Your task to perform on an android device: remove spam from my inbox in the gmail app Image 0: 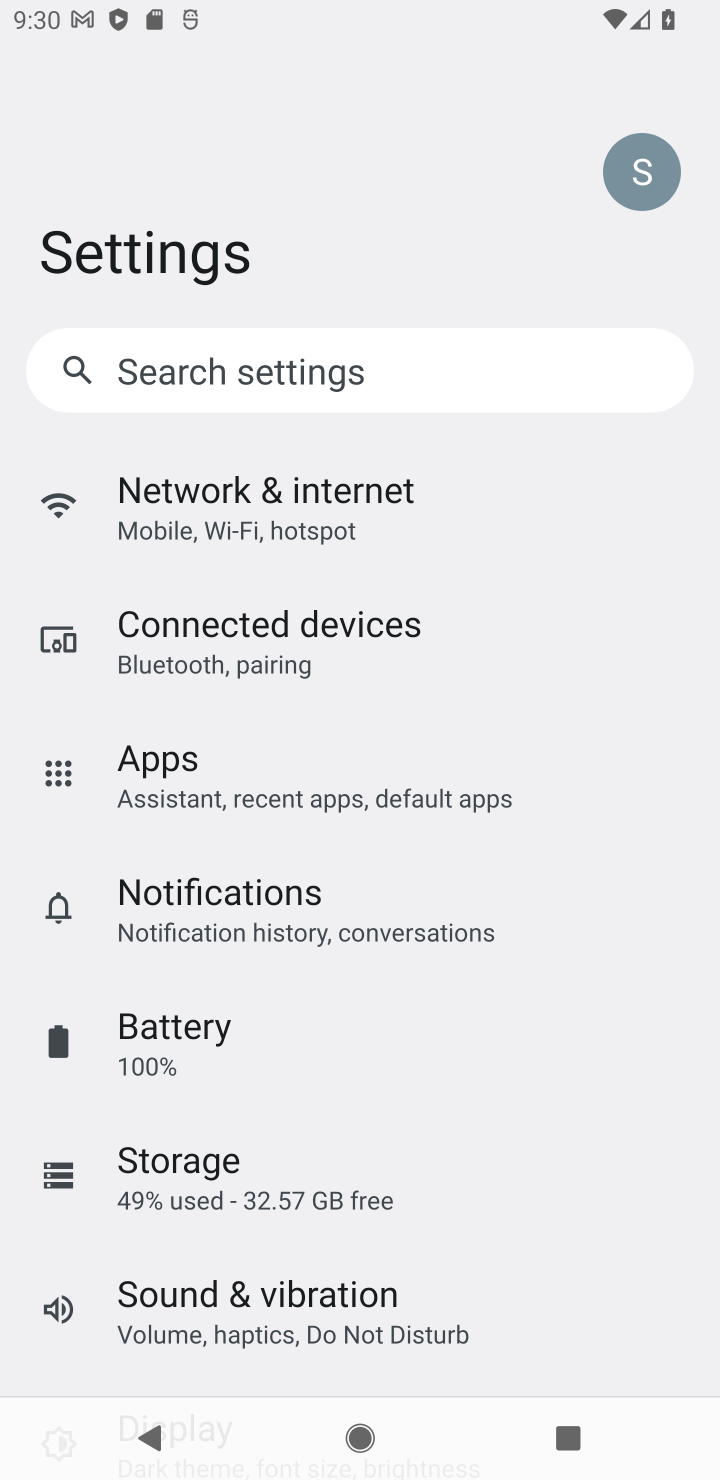
Step 0: press back button
Your task to perform on an android device: remove spam from my inbox in the gmail app Image 1: 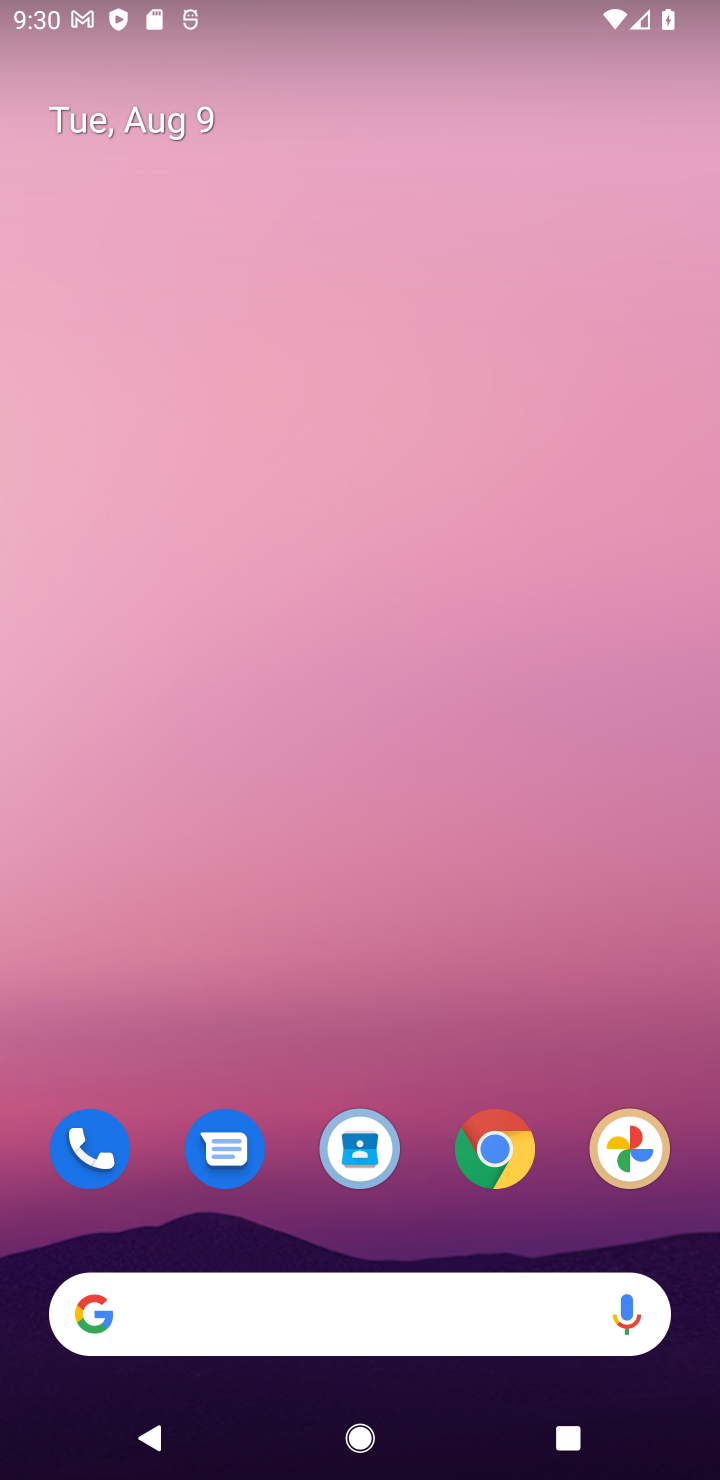
Step 1: drag from (217, 1188) to (575, 69)
Your task to perform on an android device: remove spam from my inbox in the gmail app Image 2: 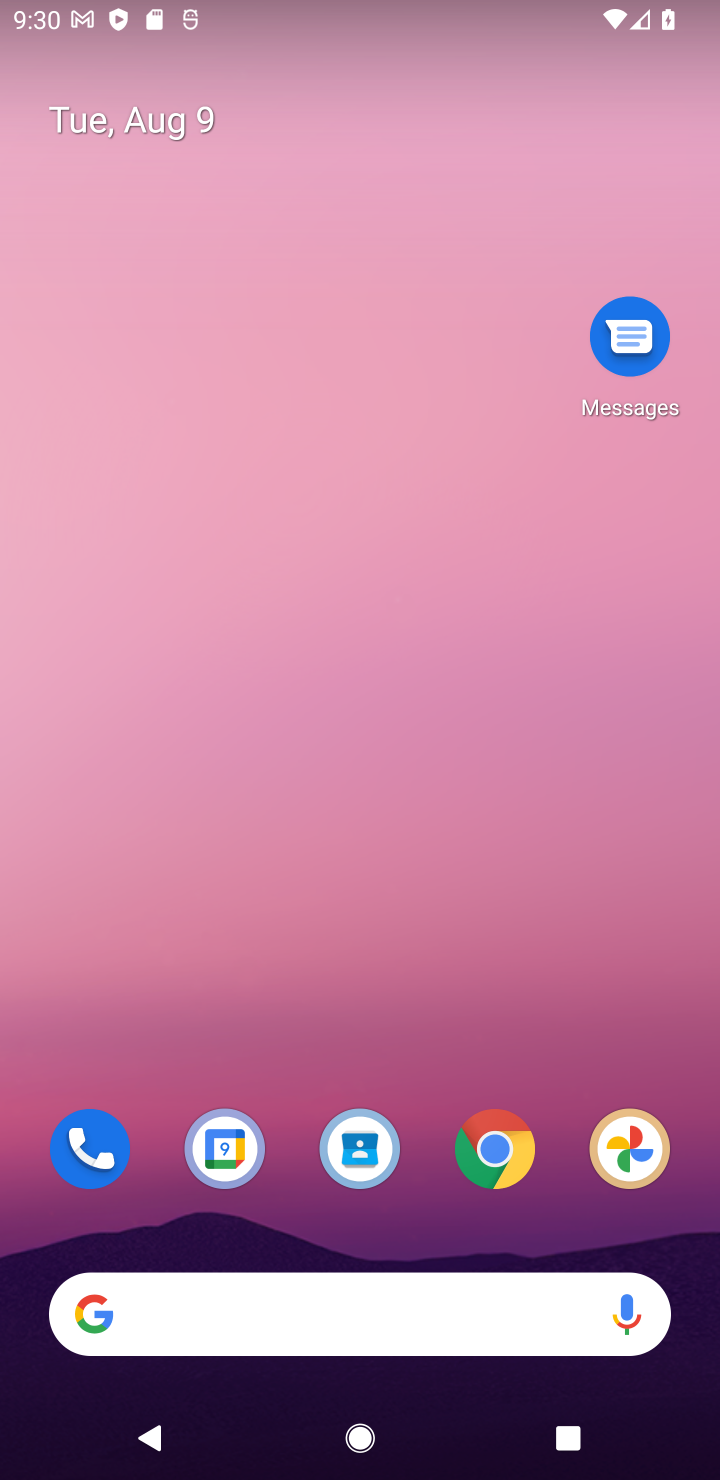
Step 2: drag from (308, 569) to (366, 15)
Your task to perform on an android device: remove spam from my inbox in the gmail app Image 3: 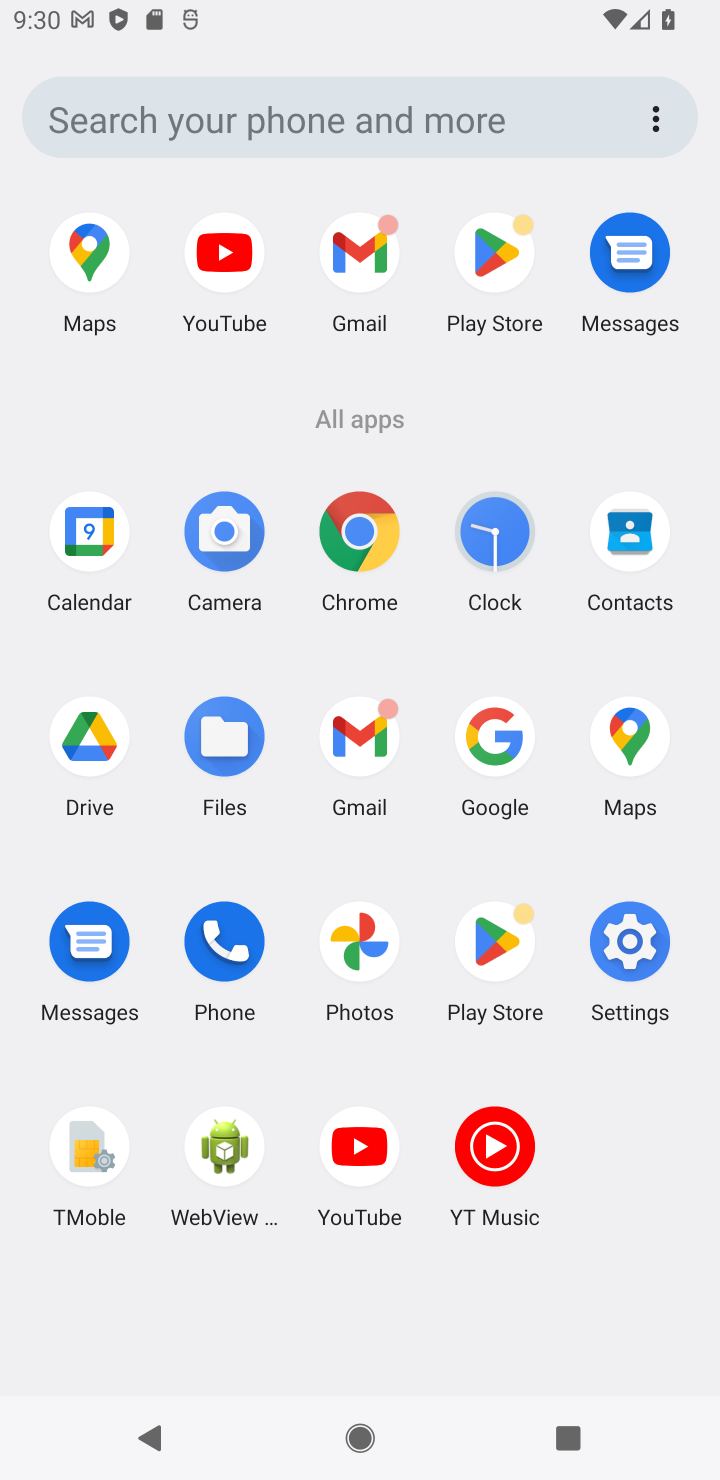
Step 3: click (375, 243)
Your task to perform on an android device: remove spam from my inbox in the gmail app Image 4: 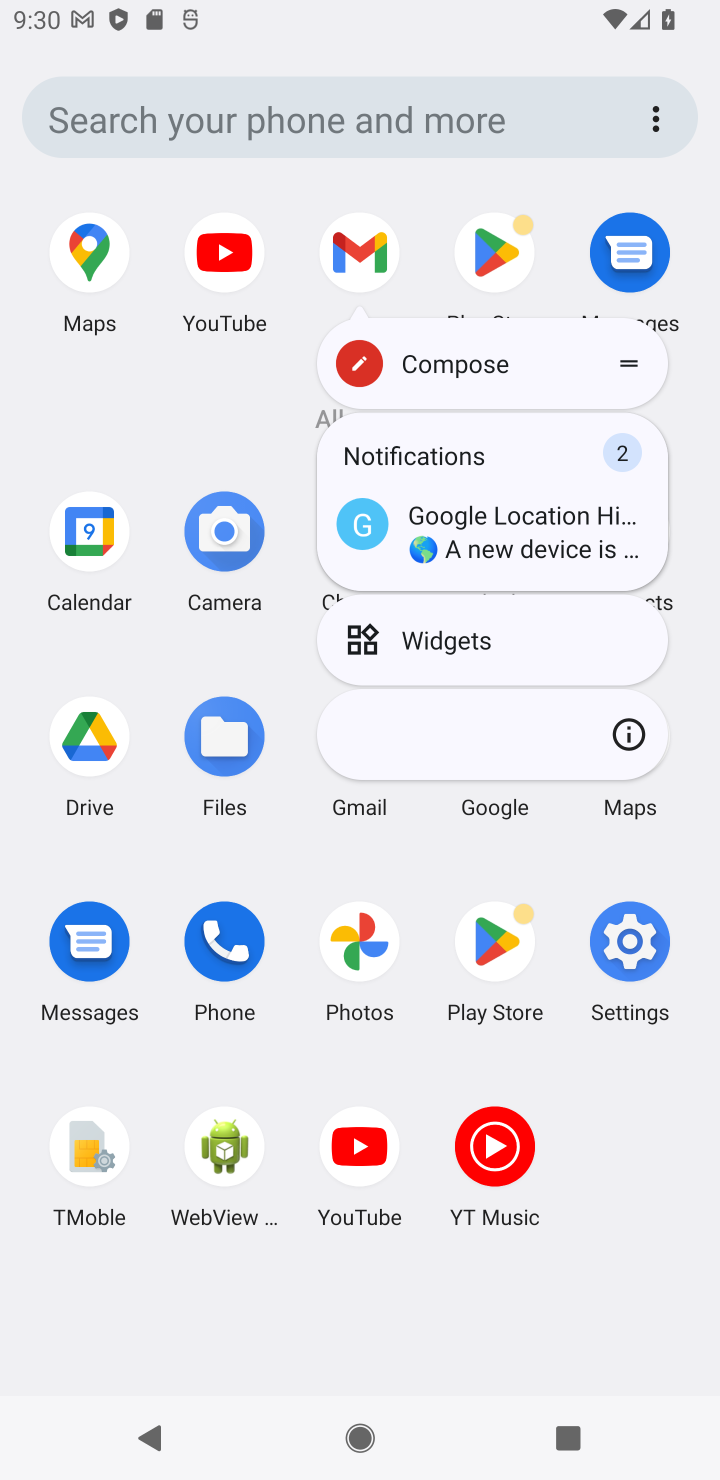
Step 4: click (365, 245)
Your task to perform on an android device: remove spam from my inbox in the gmail app Image 5: 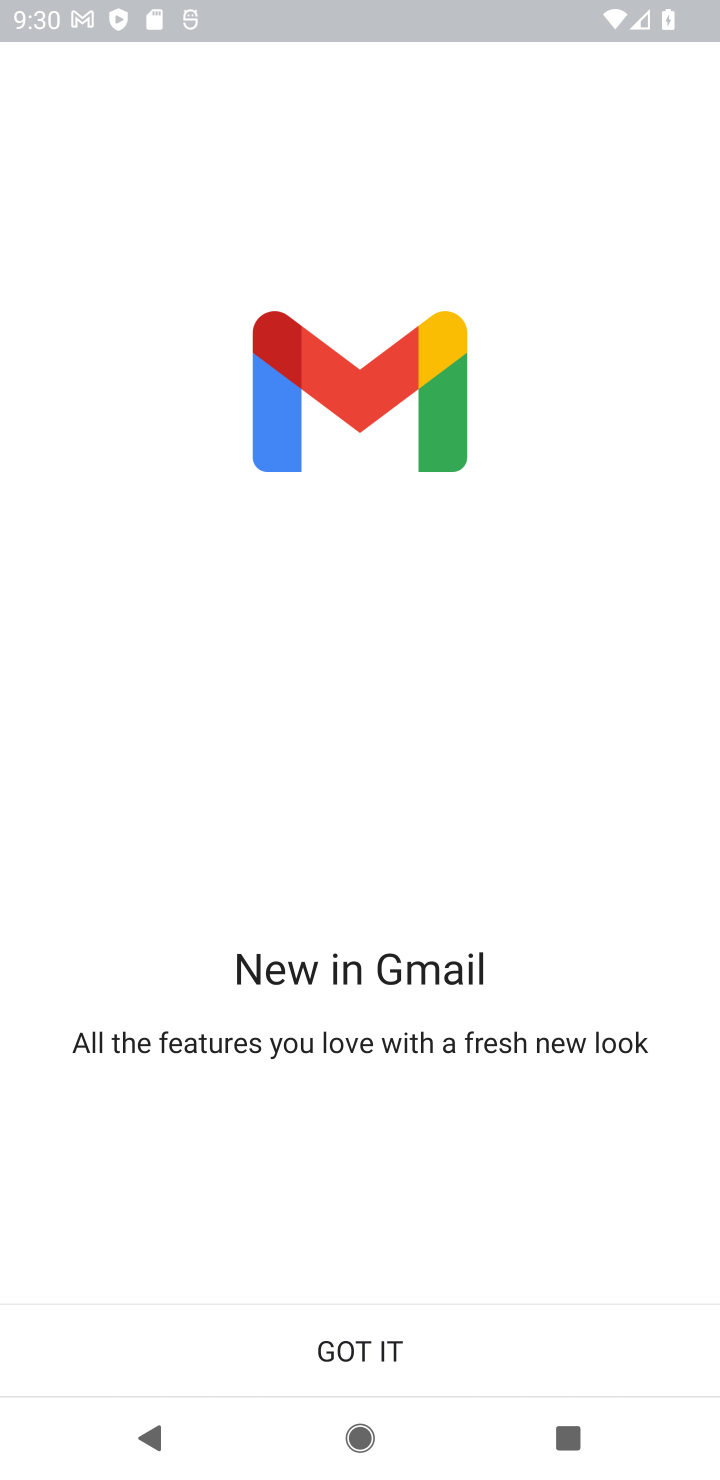
Step 5: click (363, 1318)
Your task to perform on an android device: remove spam from my inbox in the gmail app Image 6: 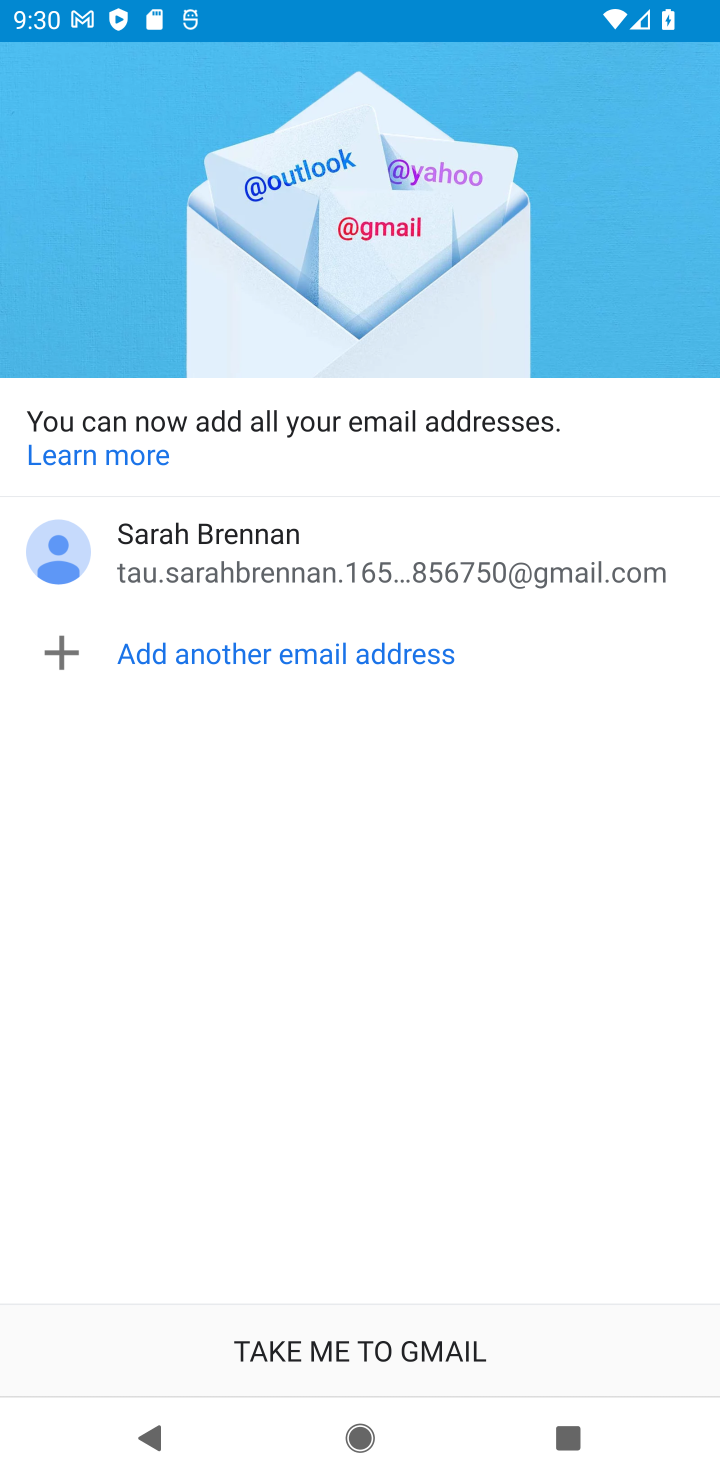
Step 6: click (372, 1338)
Your task to perform on an android device: remove spam from my inbox in the gmail app Image 7: 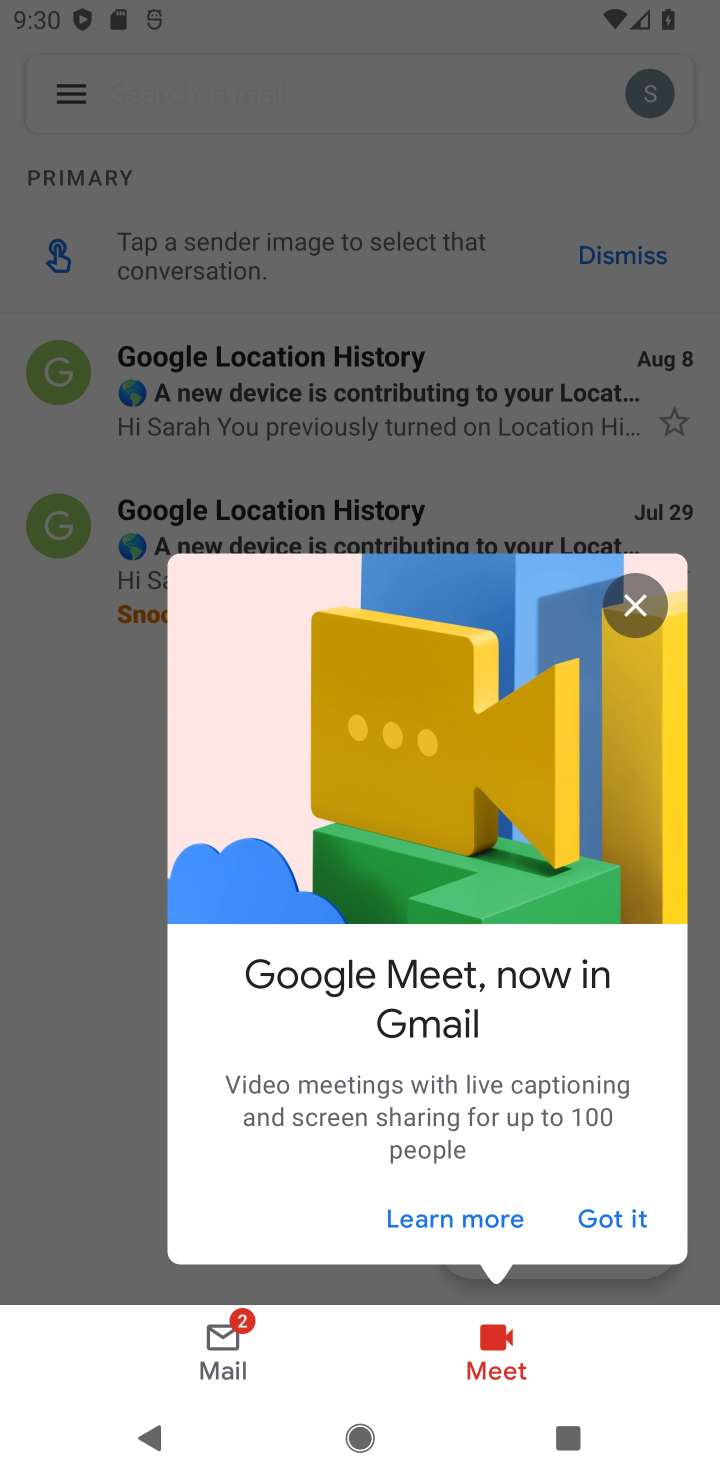
Step 7: click (606, 1207)
Your task to perform on an android device: remove spam from my inbox in the gmail app Image 8: 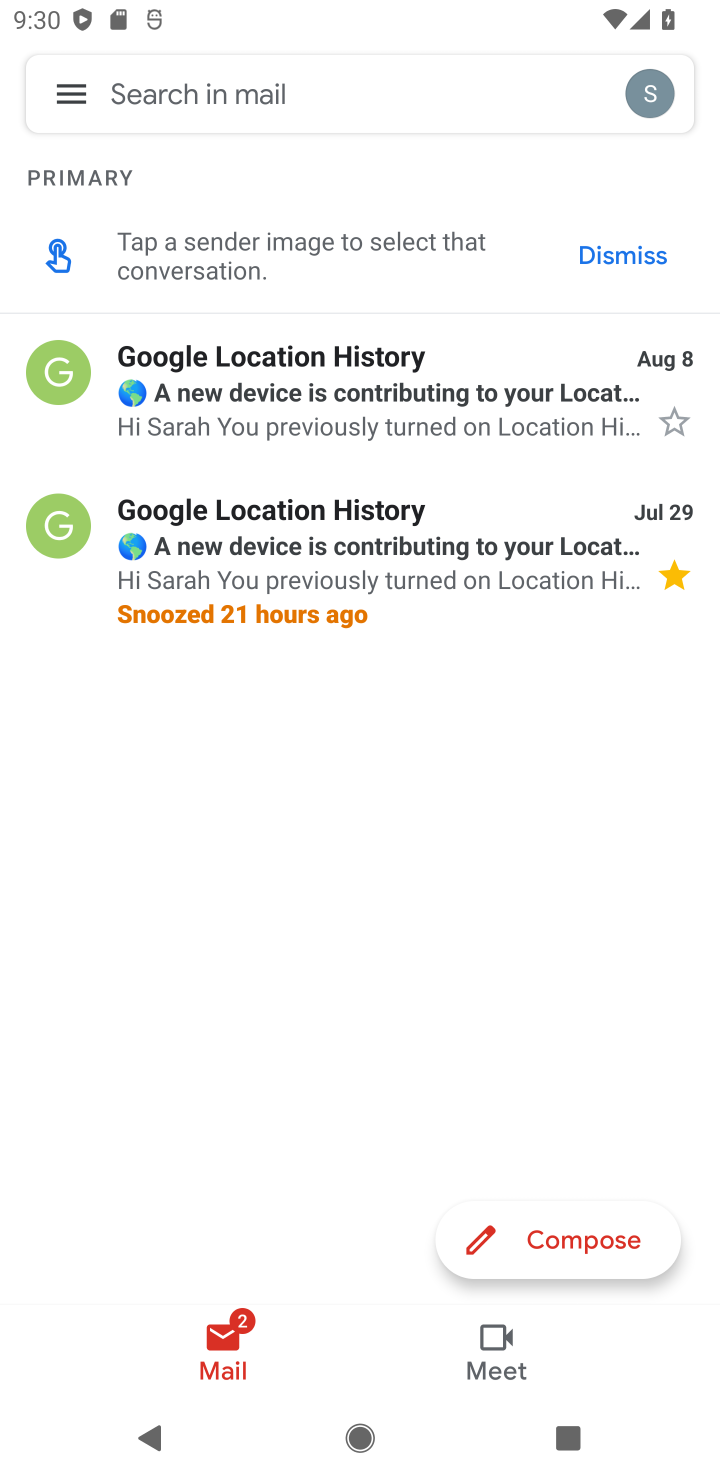
Step 8: click (68, 65)
Your task to perform on an android device: remove spam from my inbox in the gmail app Image 9: 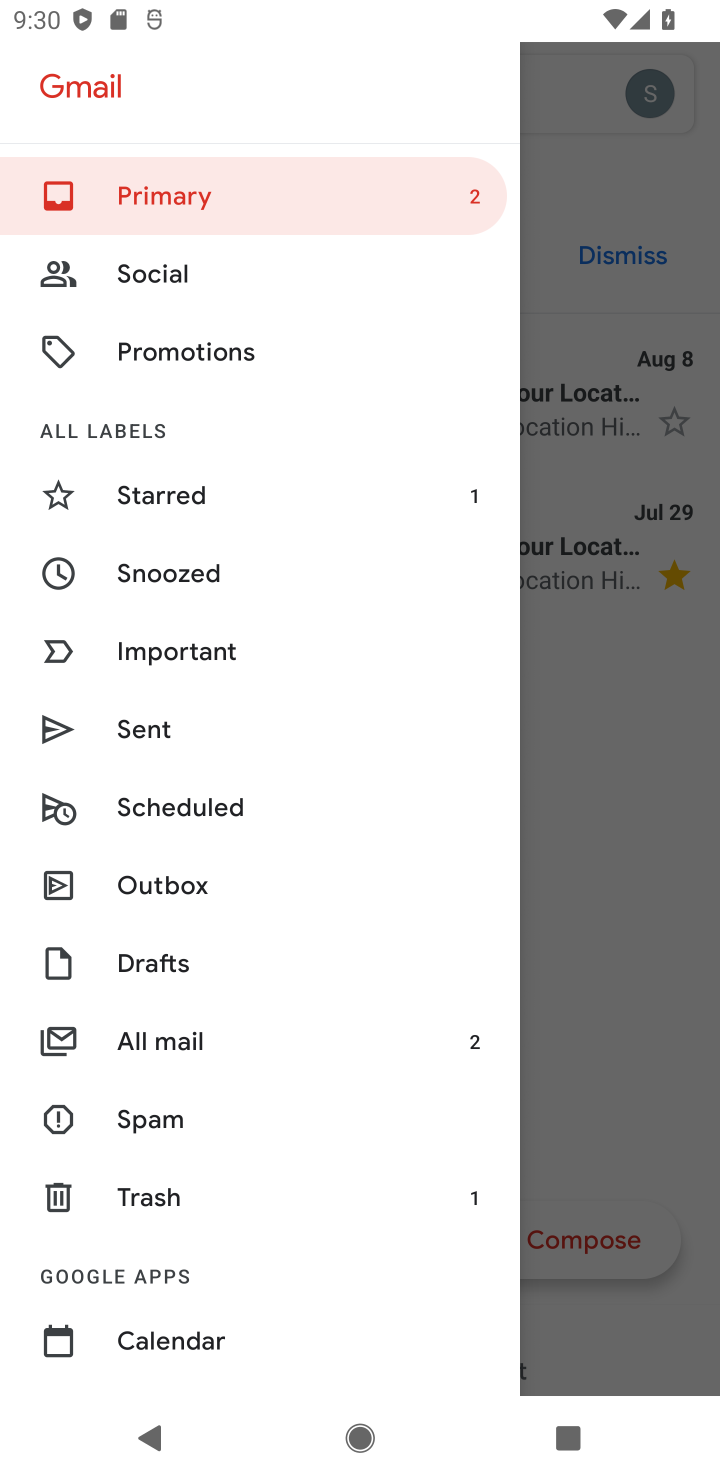
Step 9: click (202, 1114)
Your task to perform on an android device: remove spam from my inbox in the gmail app Image 10: 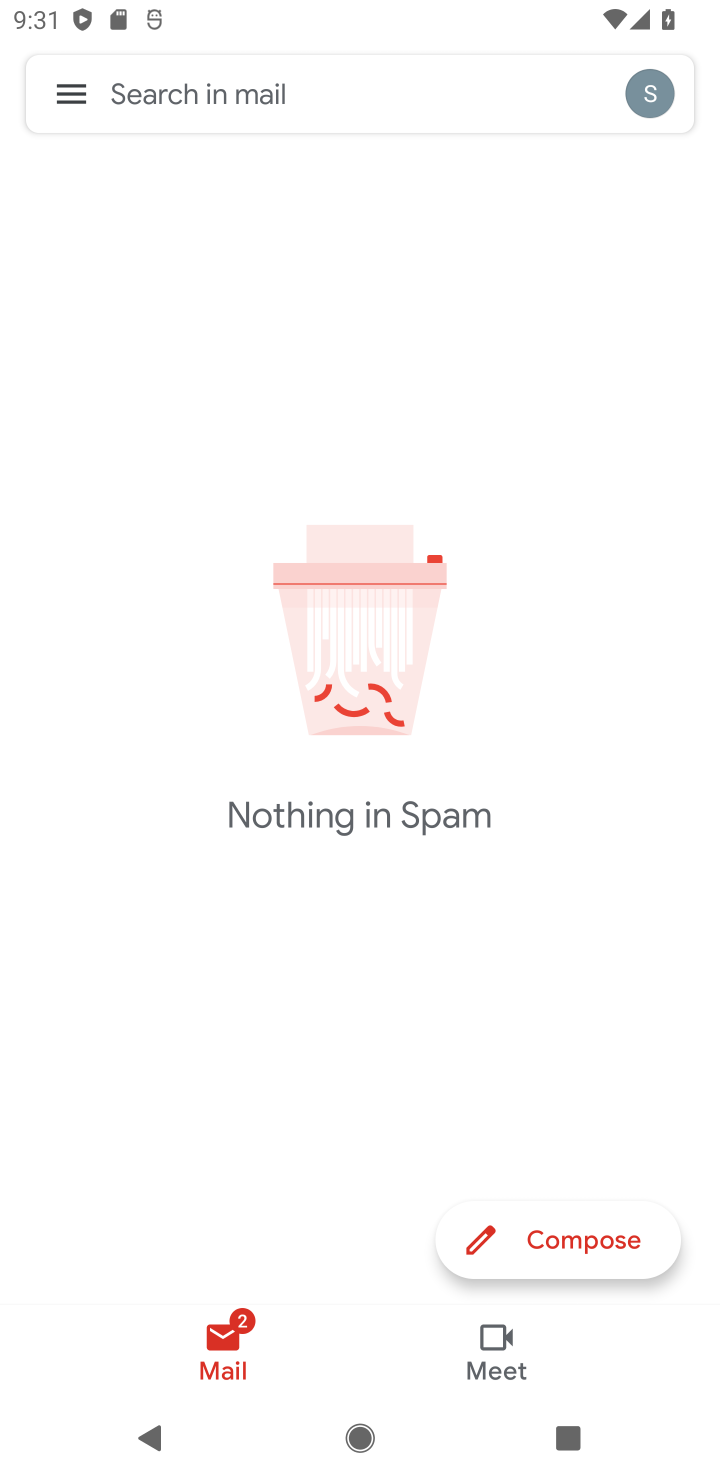
Step 10: task complete